Your task to perform on an android device: turn on the 12-hour format for clock Image 0: 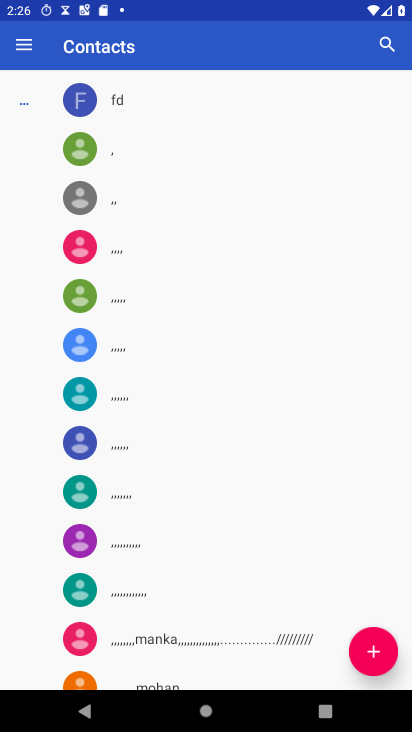
Step 0: press home button
Your task to perform on an android device: turn on the 12-hour format for clock Image 1: 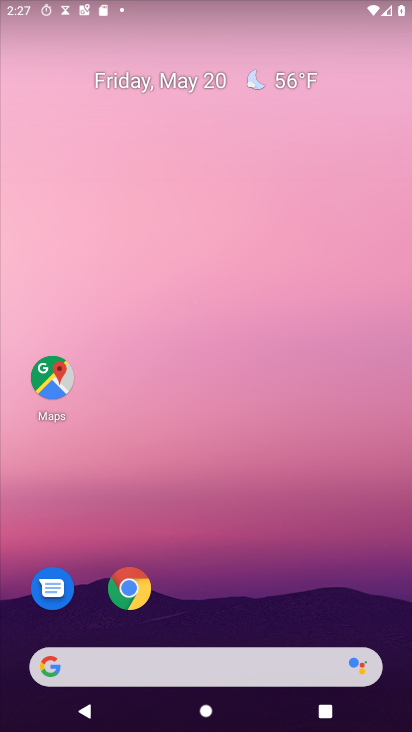
Step 1: drag from (12, 615) to (255, 213)
Your task to perform on an android device: turn on the 12-hour format for clock Image 2: 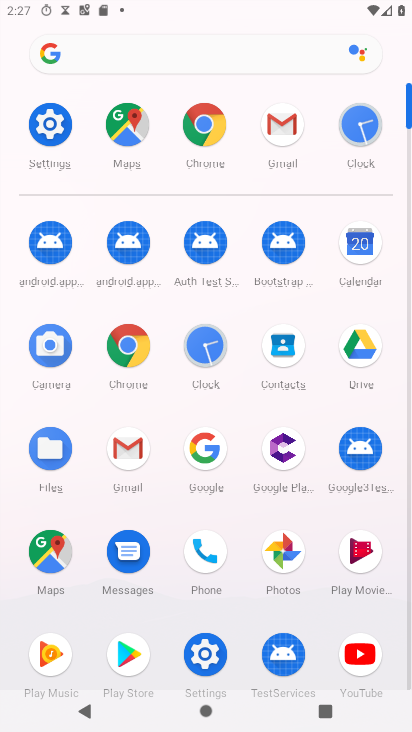
Step 2: click (54, 115)
Your task to perform on an android device: turn on the 12-hour format for clock Image 3: 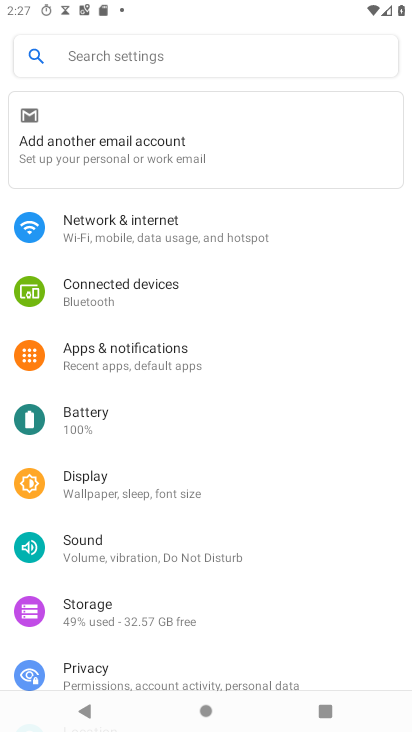
Step 3: press home button
Your task to perform on an android device: turn on the 12-hour format for clock Image 4: 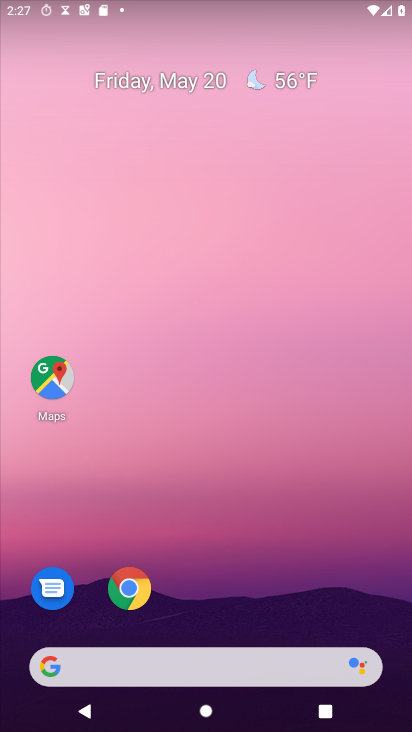
Step 4: drag from (0, 635) to (287, 139)
Your task to perform on an android device: turn on the 12-hour format for clock Image 5: 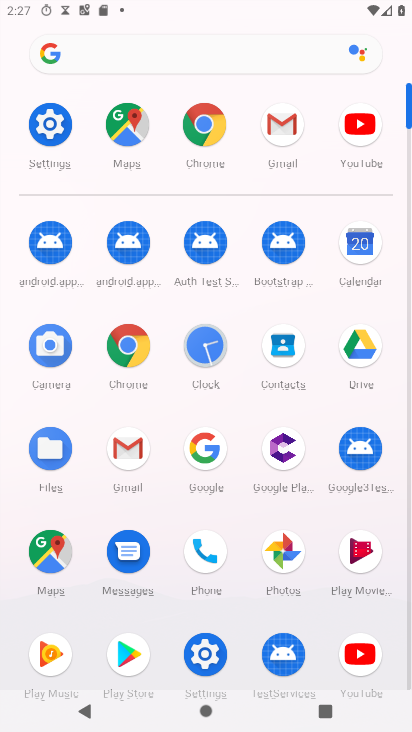
Step 5: click (190, 369)
Your task to perform on an android device: turn on the 12-hour format for clock Image 6: 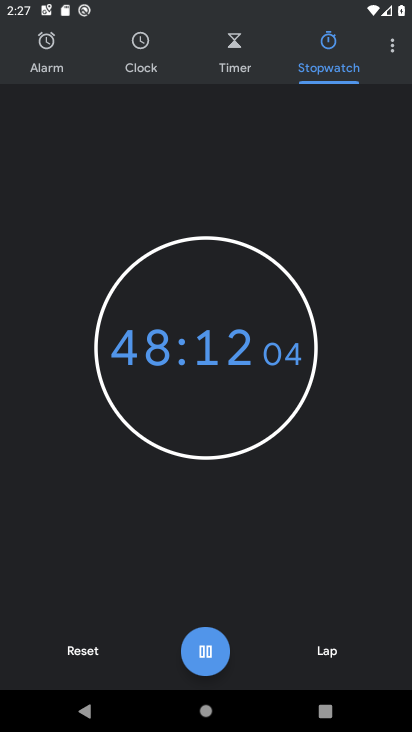
Step 6: click (392, 55)
Your task to perform on an android device: turn on the 12-hour format for clock Image 7: 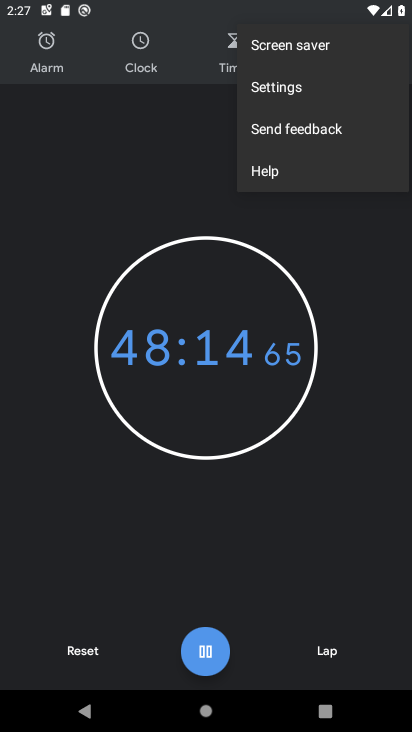
Step 7: click (313, 100)
Your task to perform on an android device: turn on the 12-hour format for clock Image 8: 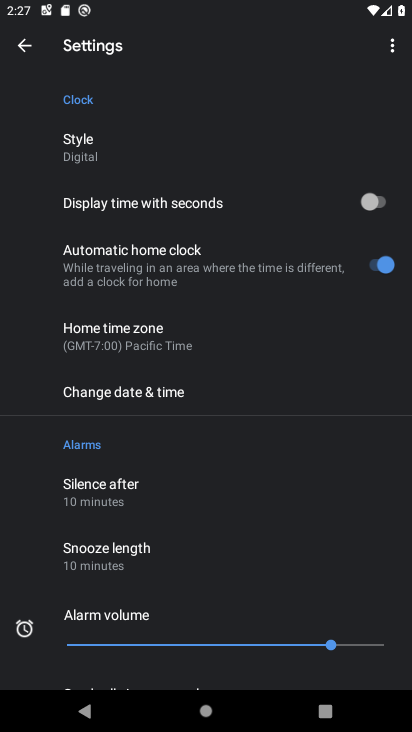
Step 8: click (156, 391)
Your task to perform on an android device: turn on the 12-hour format for clock Image 9: 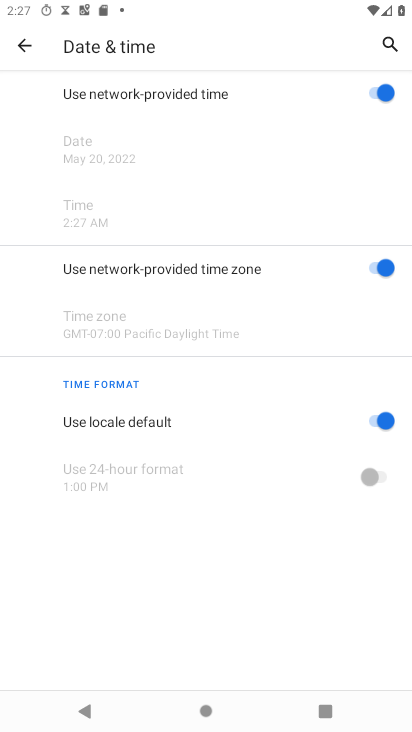
Step 9: click (201, 339)
Your task to perform on an android device: turn on the 12-hour format for clock Image 10: 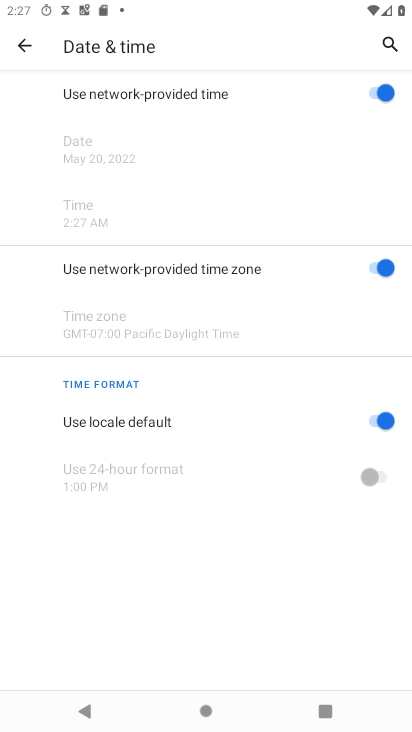
Step 10: task complete